Your task to perform on an android device: Go to ESPN.com Image 0: 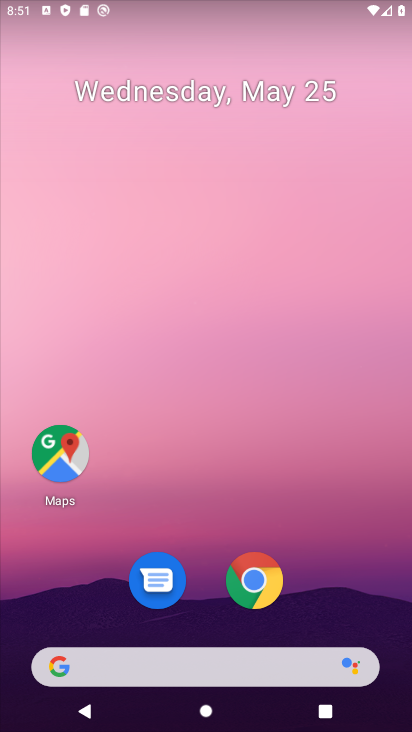
Step 0: press home button
Your task to perform on an android device: Go to ESPN.com Image 1: 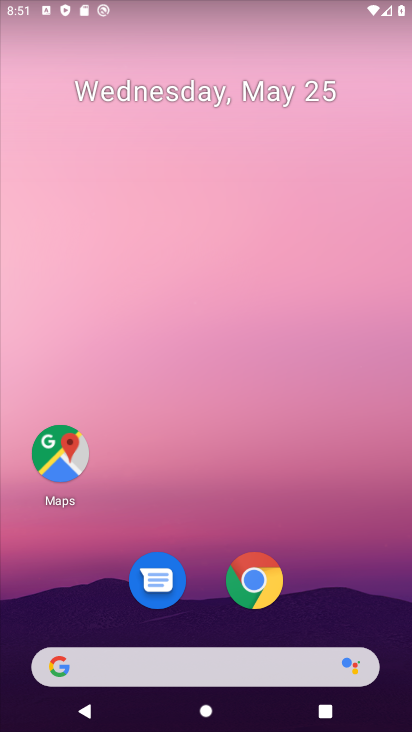
Step 1: click (249, 571)
Your task to perform on an android device: Go to ESPN.com Image 2: 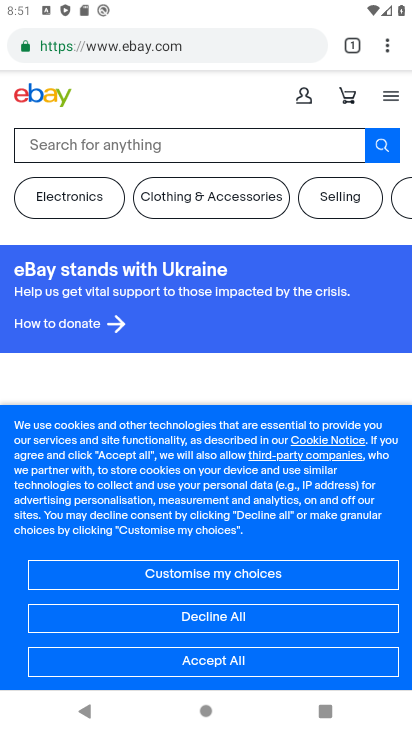
Step 2: click (364, 49)
Your task to perform on an android device: Go to ESPN.com Image 3: 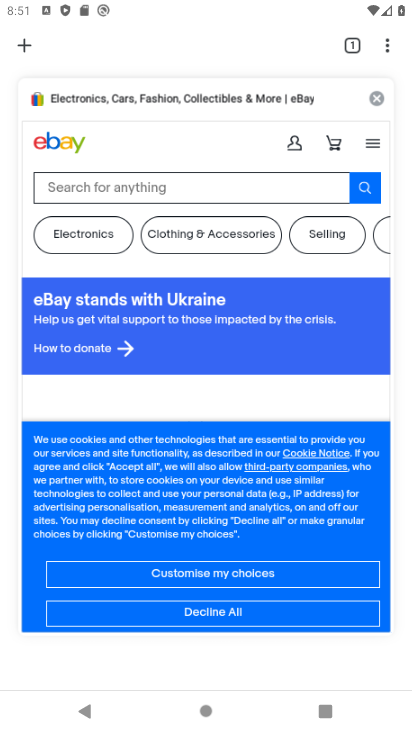
Step 3: click (375, 99)
Your task to perform on an android device: Go to ESPN.com Image 4: 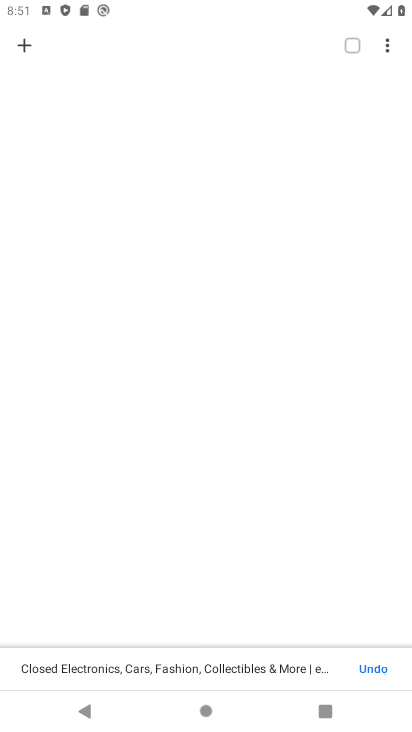
Step 4: click (38, 48)
Your task to perform on an android device: Go to ESPN.com Image 5: 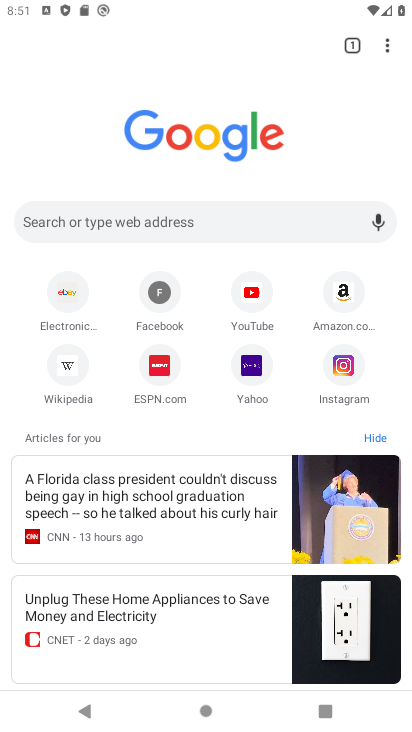
Step 5: click (169, 364)
Your task to perform on an android device: Go to ESPN.com Image 6: 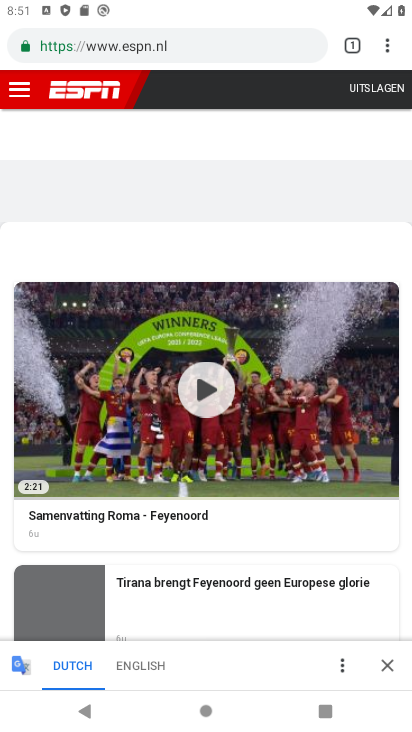
Step 6: task complete